Your task to perform on an android device: Open Google Chrome and open the bookmarks view Image 0: 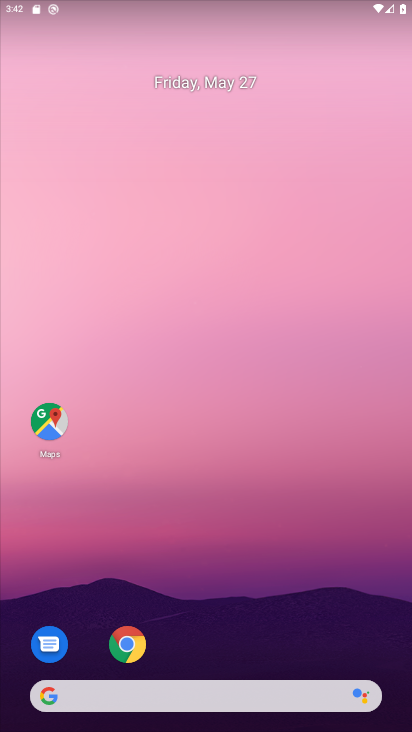
Step 0: drag from (355, 594) to (226, 725)
Your task to perform on an android device: Open Google Chrome and open the bookmarks view Image 1: 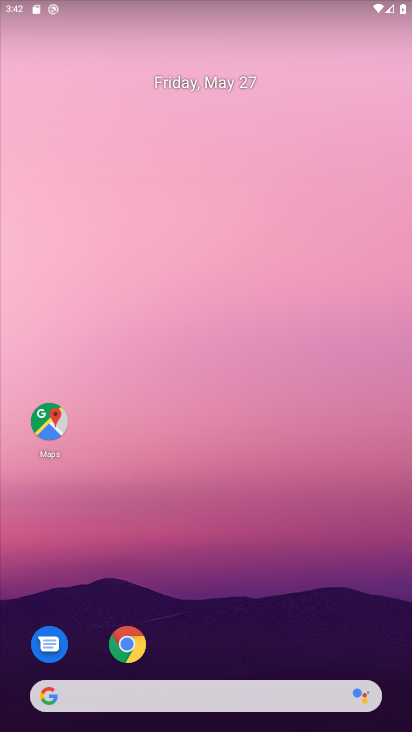
Step 1: click (126, 638)
Your task to perform on an android device: Open Google Chrome and open the bookmarks view Image 2: 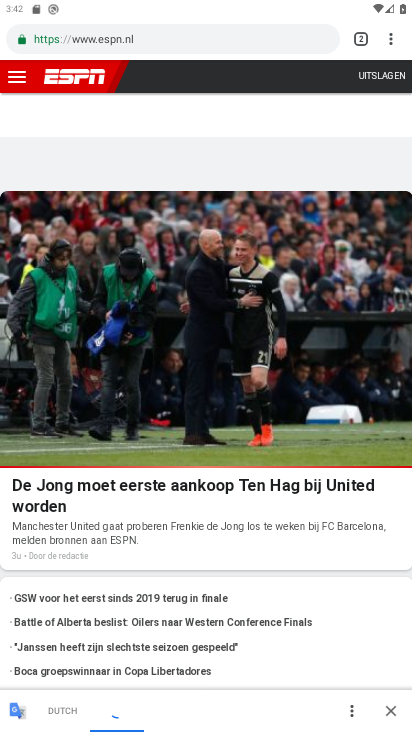
Step 2: click (388, 35)
Your task to perform on an android device: Open Google Chrome and open the bookmarks view Image 3: 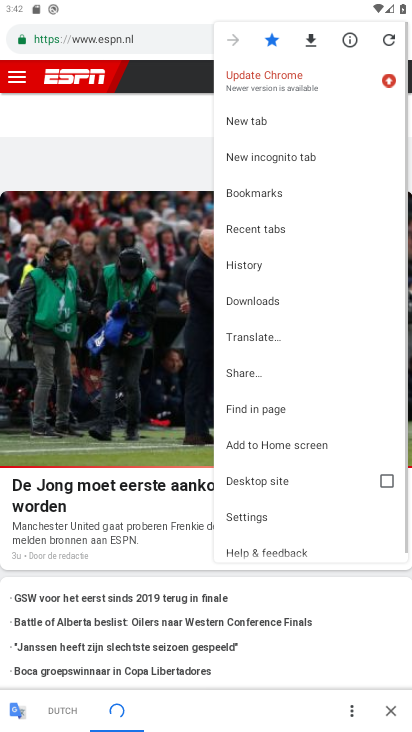
Step 3: click (260, 184)
Your task to perform on an android device: Open Google Chrome and open the bookmarks view Image 4: 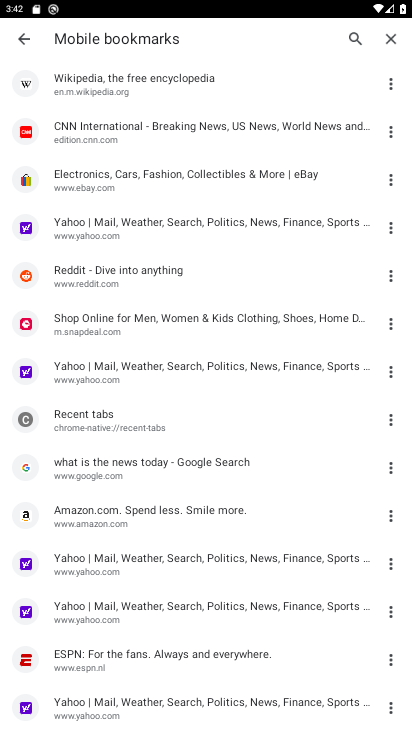
Step 4: click (149, 165)
Your task to perform on an android device: Open Google Chrome and open the bookmarks view Image 5: 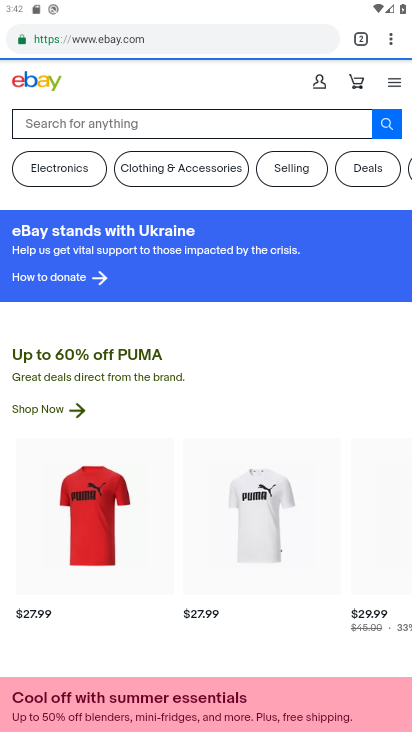
Step 5: task complete